Your task to perform on an android device: Add "asus rog" to the cart on costco.com, then select checkout. Image 0: 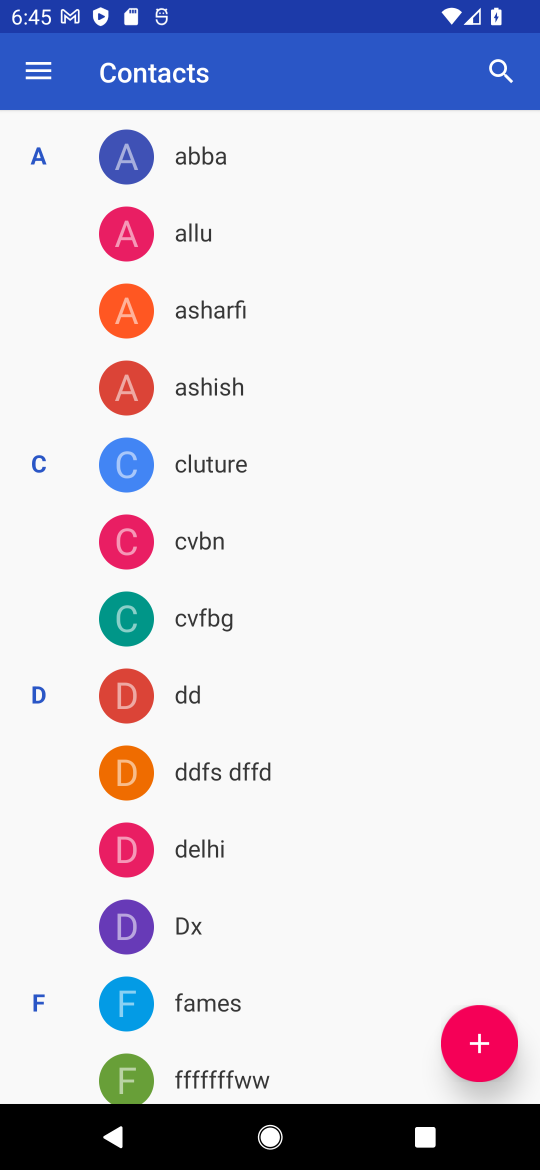
Step 0: press home button
Your task to perform on an android device: Add "asus rog" to the cart on costco.com, then select checkout. Image 1: 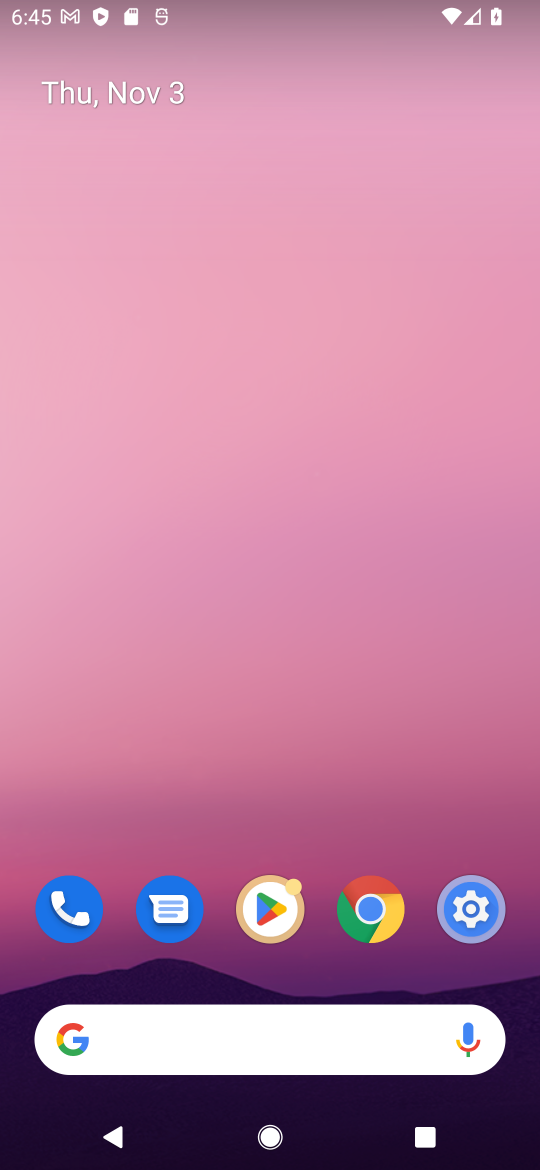
Step 1: drag from (277, 1061) to (310, 64)
Your task to perform on an android device: Add "asus rog" to the cart on costco.com, then select checkout. Image 2: 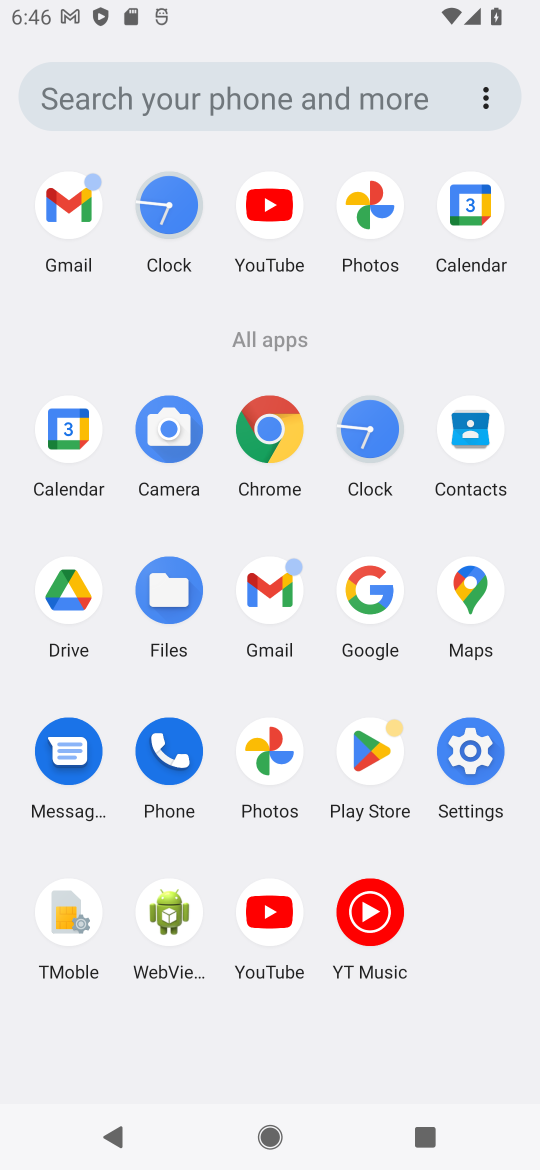
Step 2: click (364, 579)
Your task to perform on an android device: Add "asus rog" to the cart on costco.com, then select checkout. Image 3: 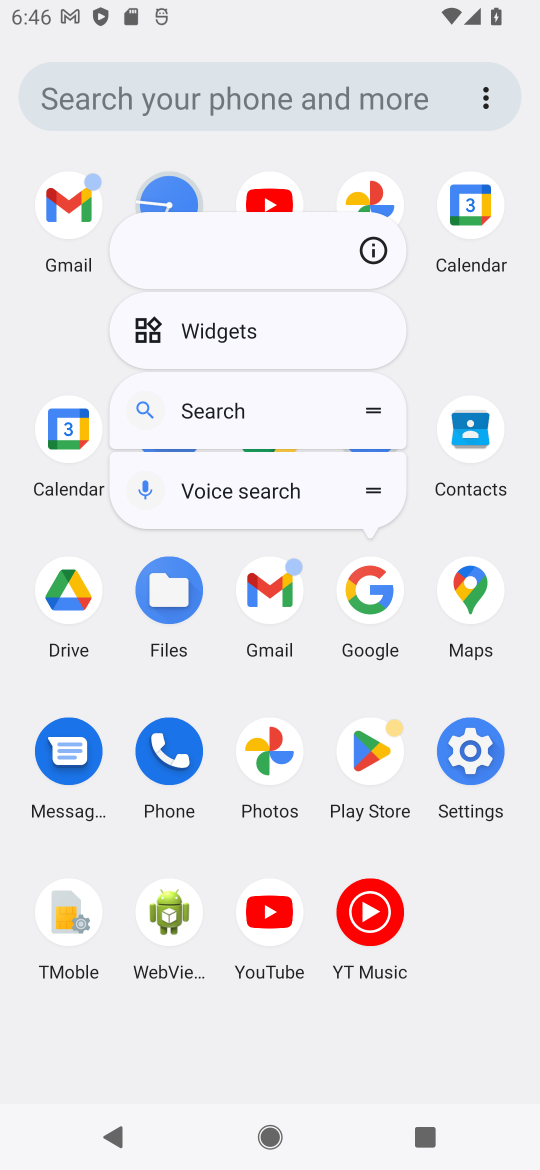
Step 3: click (364, 579)
Your task to perform on an android device: Add "asus rog" to the cart on costco.com, then select checkout. Image 4: 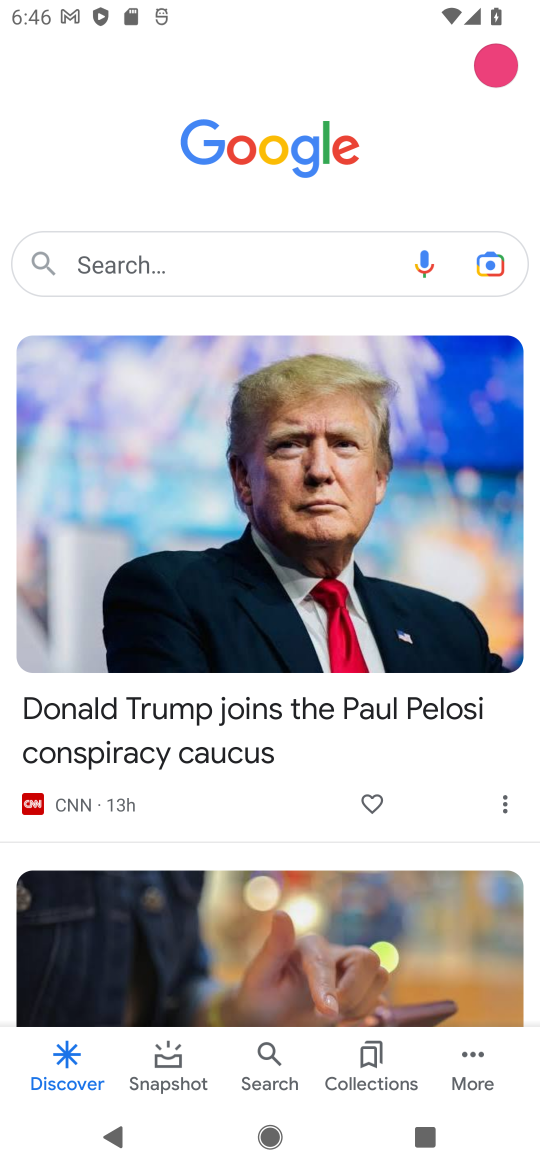
Step 4: click (207, 260)
Your task to perform on an android device: Add "asus rog" to the cart on costco.com, then select checkout. Image 5: 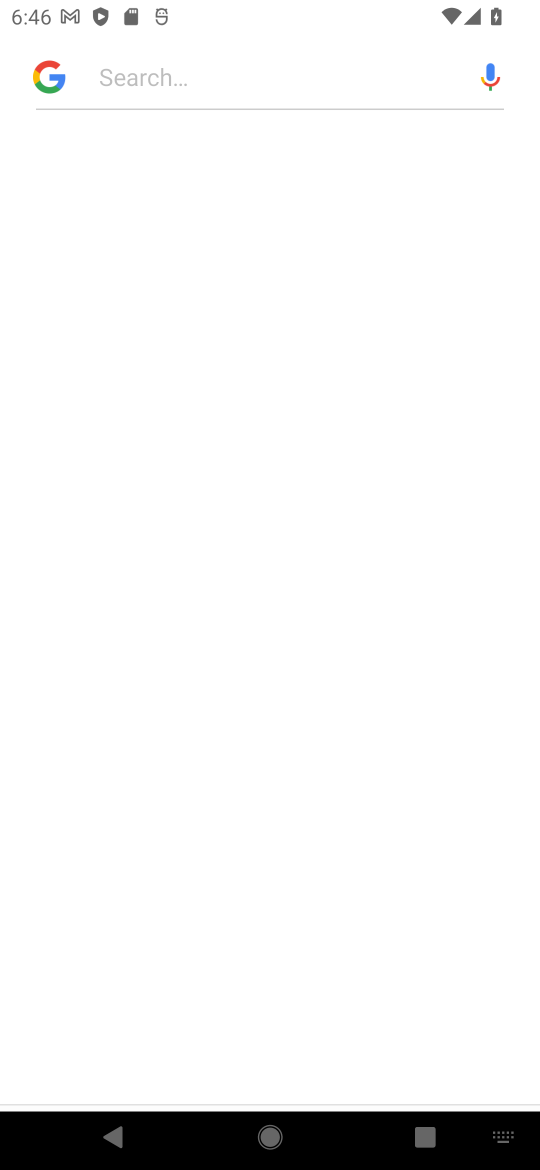
Step 5: type "costco.com "
Your task to perform on an android device: Add "asus rog" to the cart on costco.com, then select checkout. Image 6: 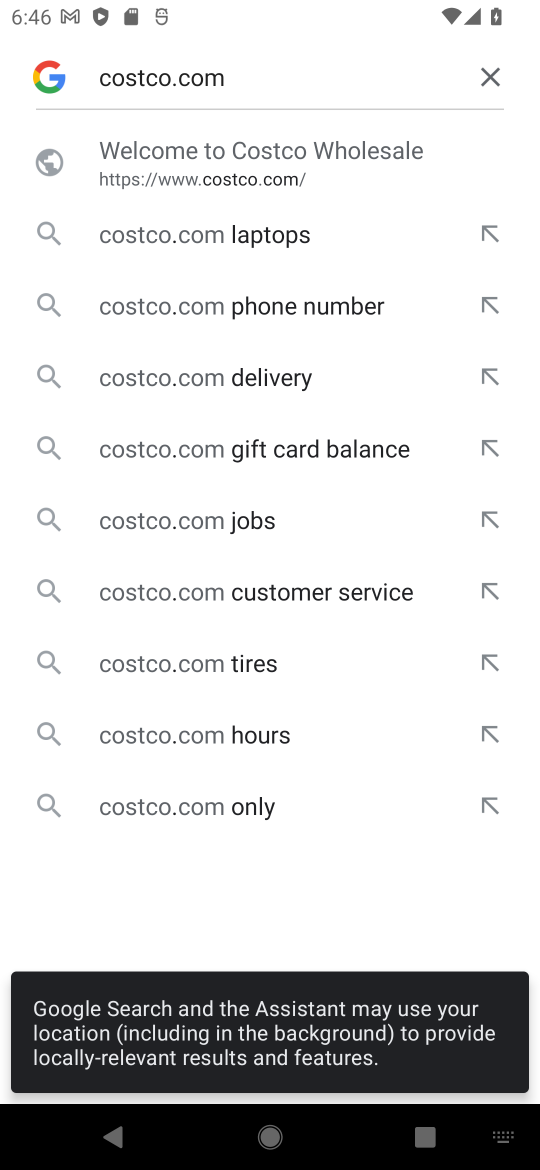
Step 6: click (191, 162)
Your task to perform on an android device: Add "asus rog" to the cart on costco.com, then select checkout. Image 7: 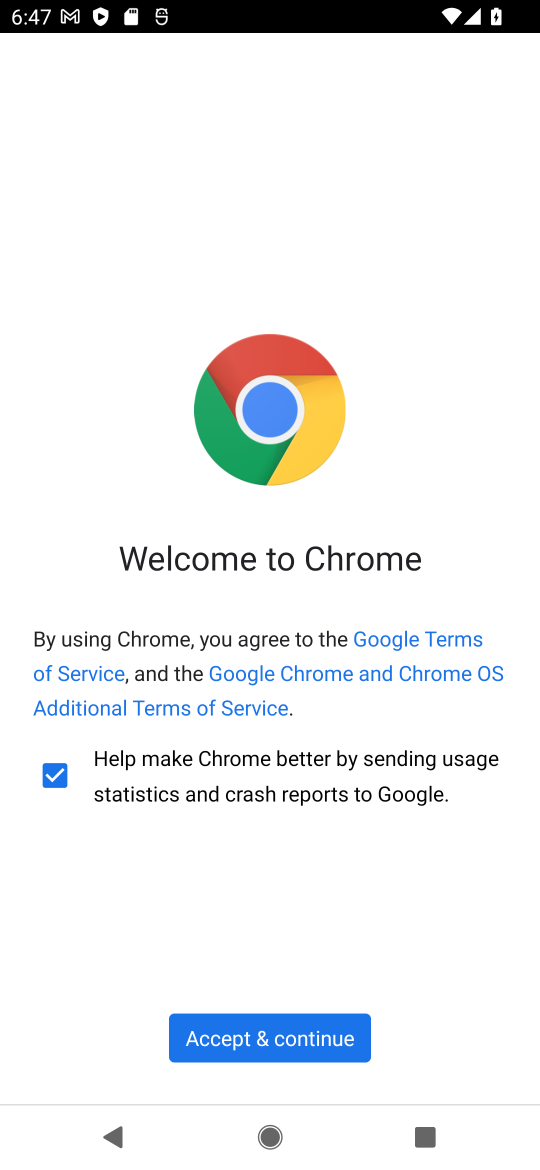
Step 7: click (258, 1039)
Your task to perform on an android device: Add "asus rog" to the cart on costco.com, then select checkout. Image 8: 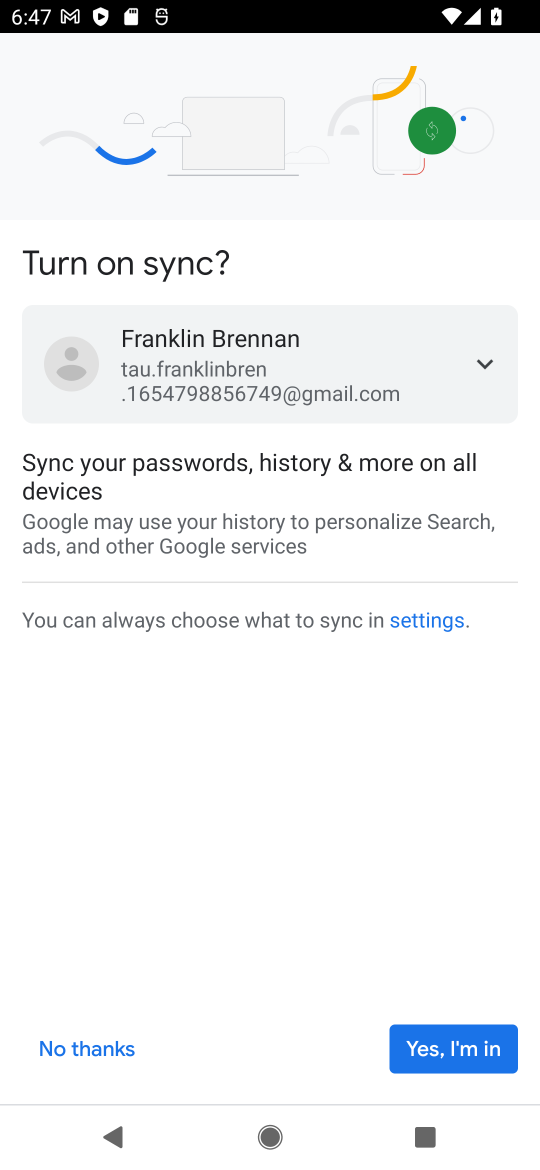
Step 8: click (72, 1035)
Your task to perform on an android device: Add "asus rog" to the cart on costco.com, then select checkout. Image 9: 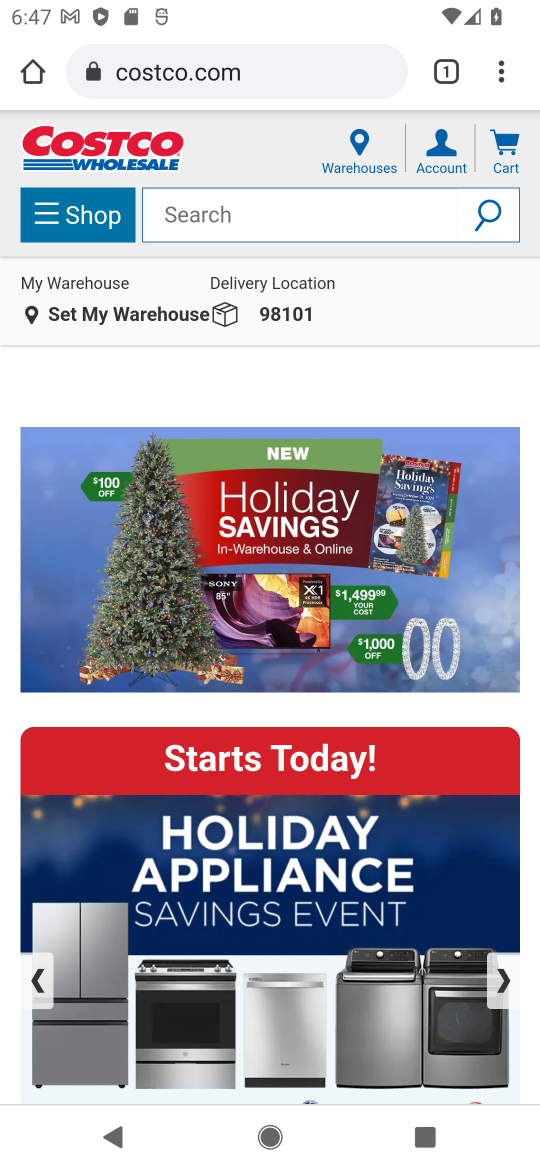
Step 9: click (290, 198)
Your task to perform on an android device: Add "asus rog" to the cart on costco.com, then select checkout. Image 10: 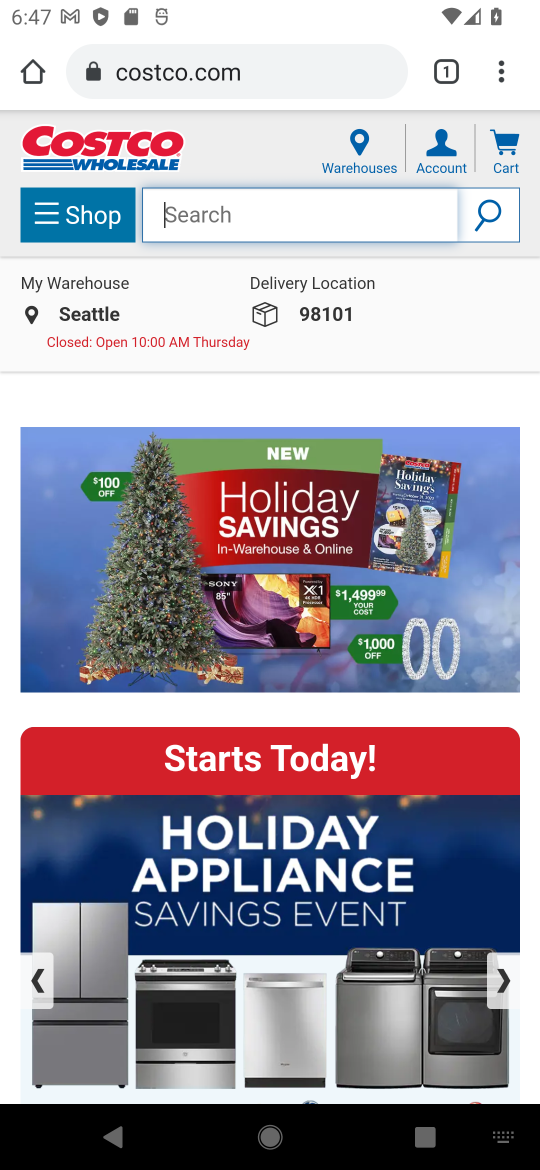
Step 10: click (292, 203)
Your task to perform on an android device: Add "asus rog" to the cart on costco.com, then select checkout. Image 11: 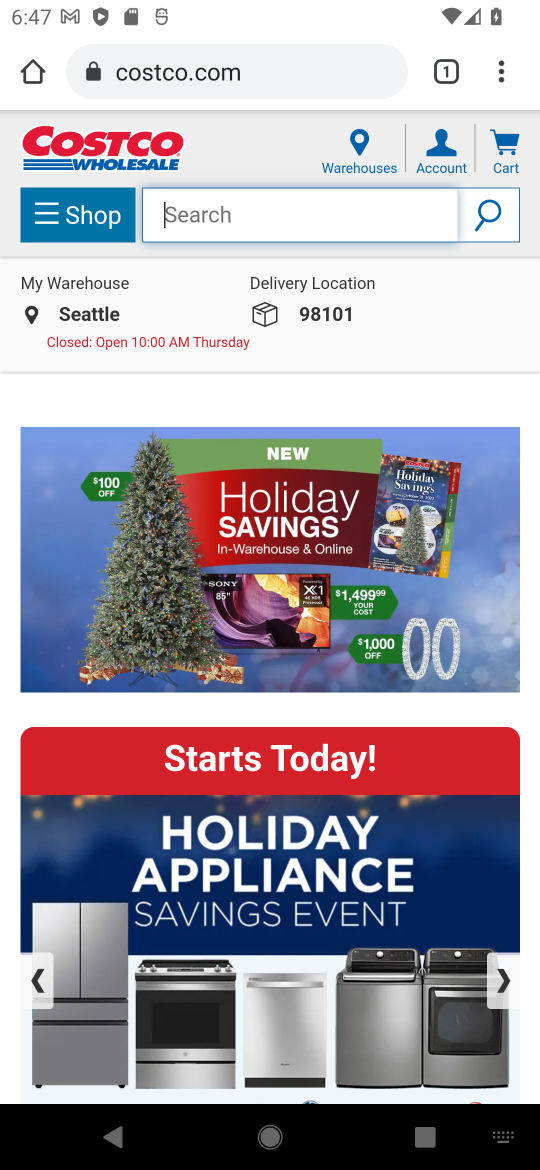
Step 11: type "asus rog "
Your task to perform on an android device: Add "asus rog" to the cart on costco.com, then select checkout. Image 12: 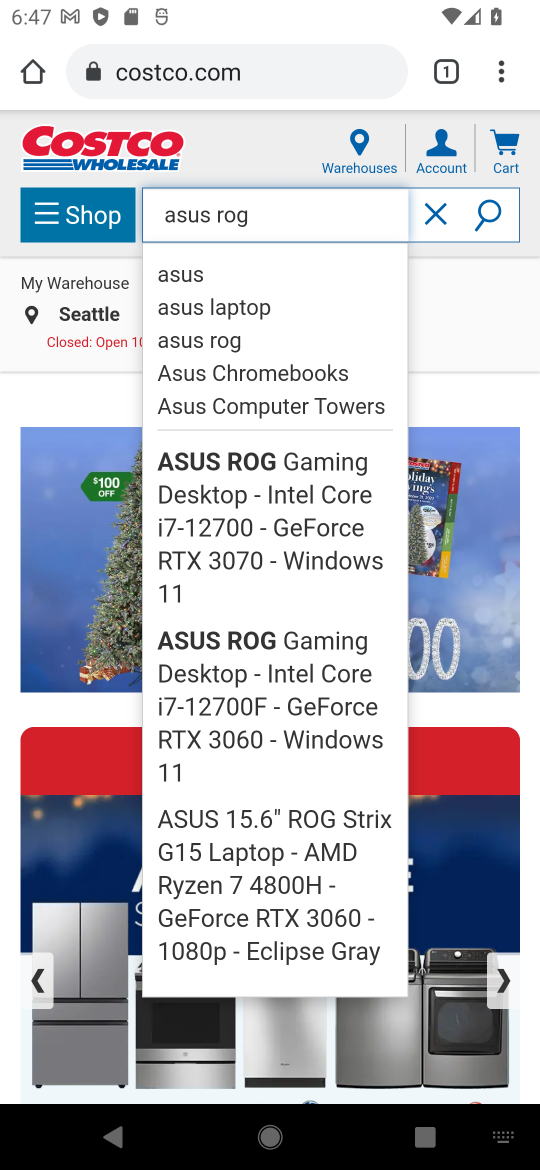
Step 12: click (192, 303)
Your task to perform on an android device: Add "asus rog" to the cart on costco.com, then select checkout. Image 13: 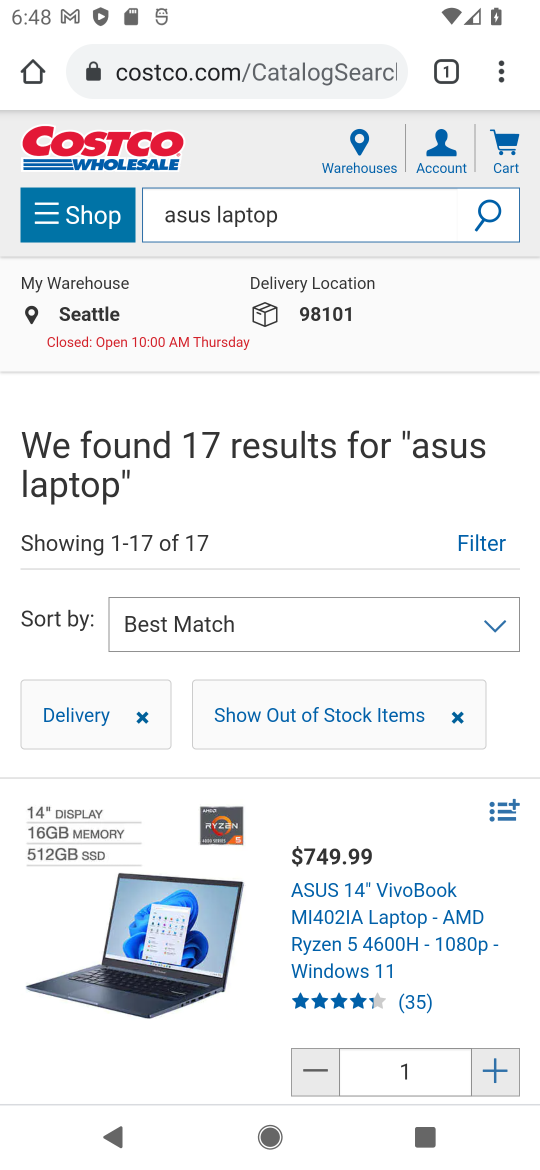
Step 13: drag from (287, 955) to (301, 569)
Your task to perform on an android device: Add "asus rog" to the cart on costco.com, then select checkout. Image 14: 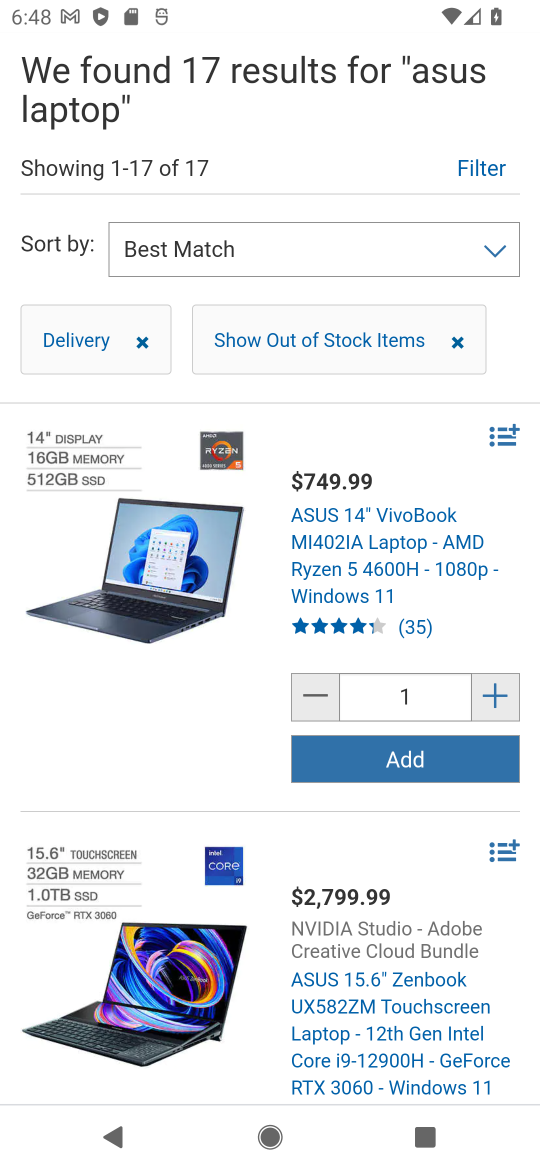
Step 14: click (435, 742)
Your task to perform on an android device: Add "asus rog" to the cart on costco.com, then select checkout. Image 15: 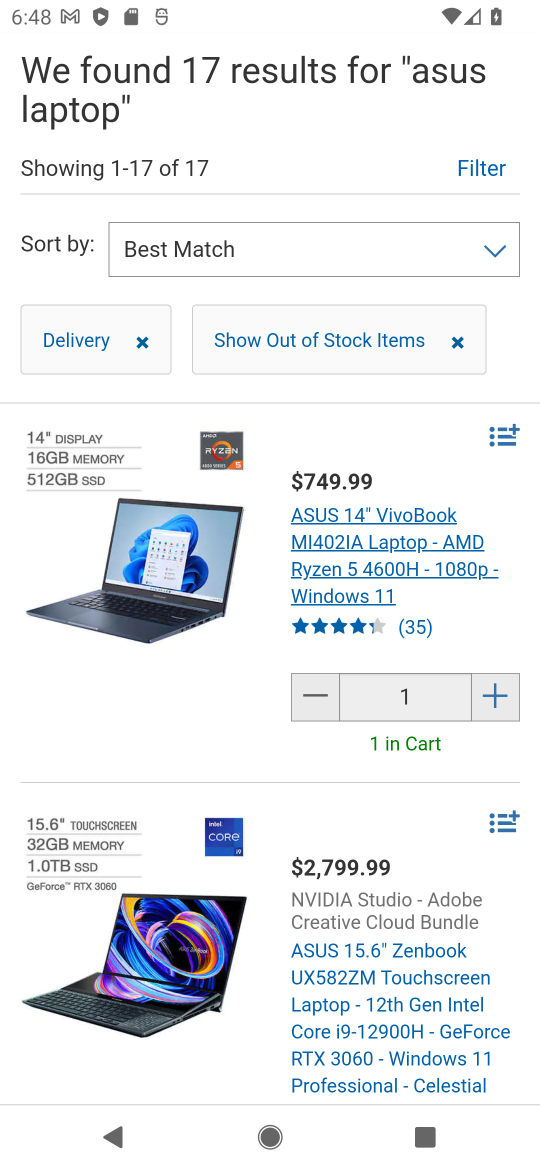
Step 15: task complete